Your task to perform on an android device: turn off notifications settings in the gmail app Image 0: 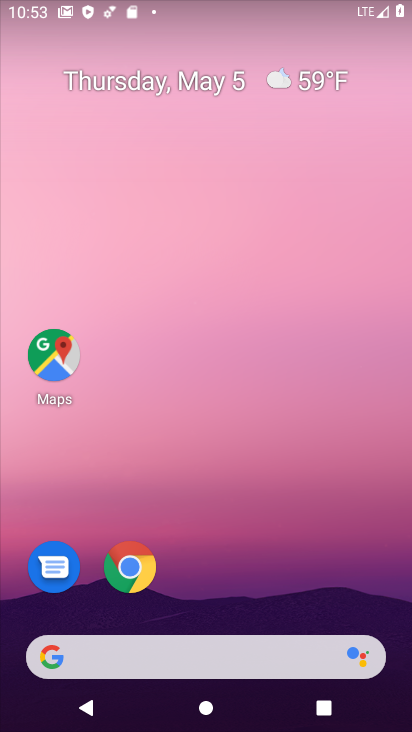
Step 0: drag from (225, 596) to (335, 43)
Your task to perform on an android device: turn off notifications settings in the gmail app Image 1: 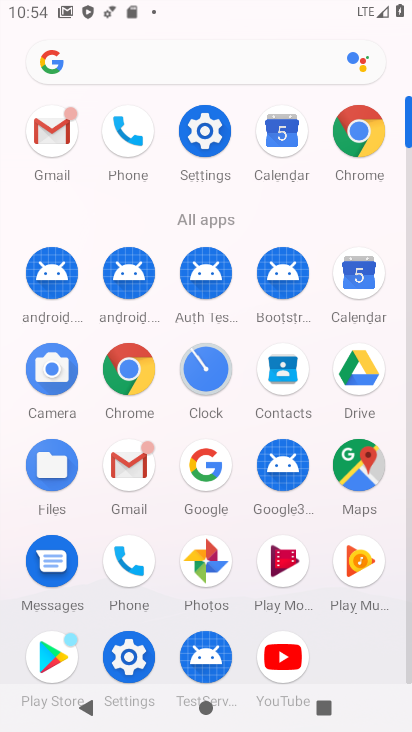
Step 1: click (52, 133)
Your task to perform on an android device: turn off notifications settings in the gmail app Image 2: 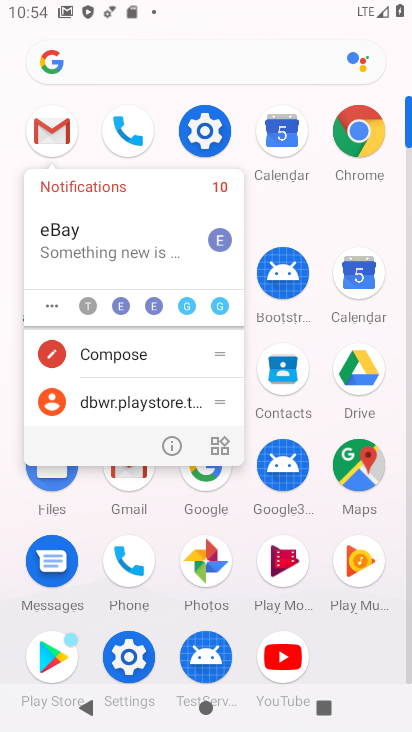
Step 2: click (175, 450)
Your task to perform on an android device: turn off notifications settings in the gmail app Image 3: 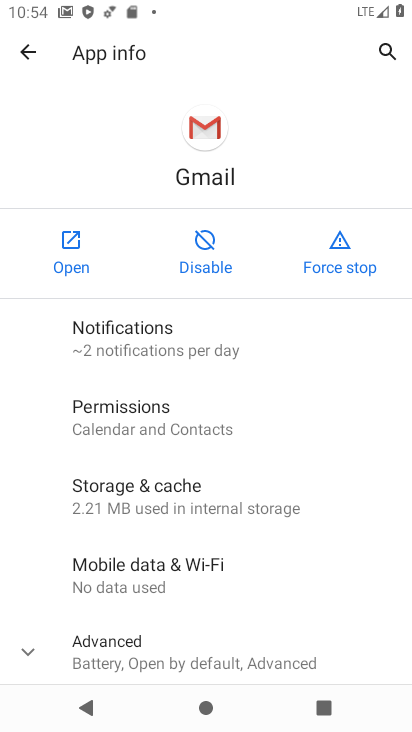
Step 3: click (136, 337)
Your task to perform on an android device: turn off notifications settings in the gmail app Image 4: 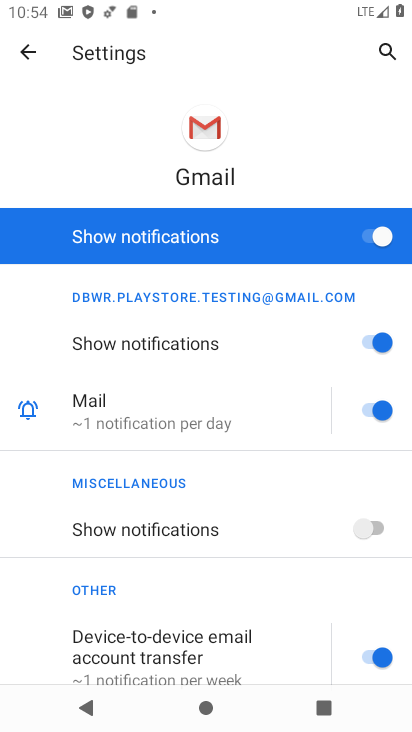
Step 4: click (375, 242)
Your task to perform on an android device: turn off notifications settings in the gmail app Image 5: 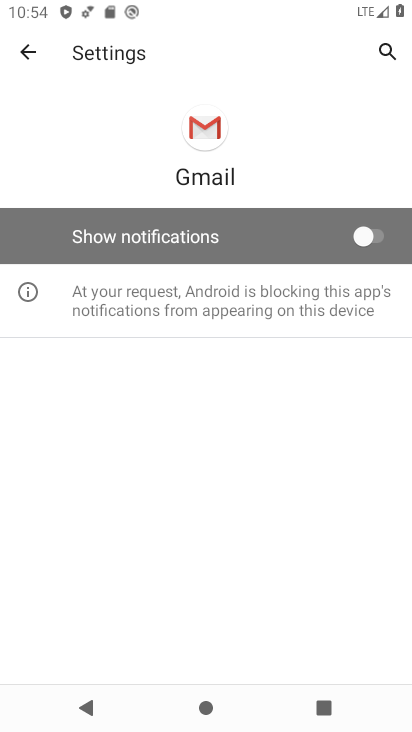
Step 5: task complete